Your task to perform on an android device: toggle wifi Image 0: 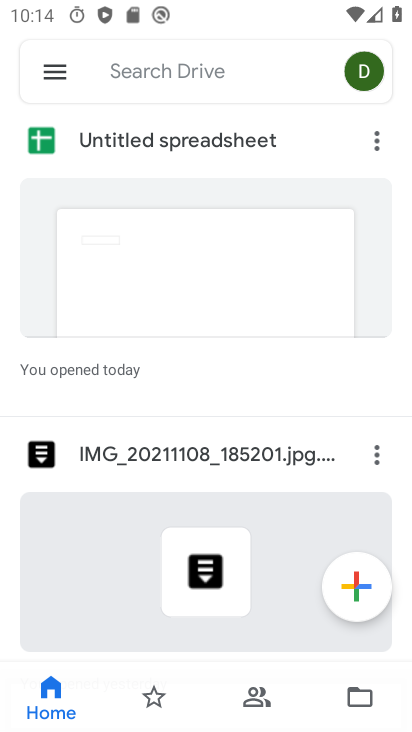
Step 0: press home button
Your task to perform on an android device: toggle wifi Image 1: 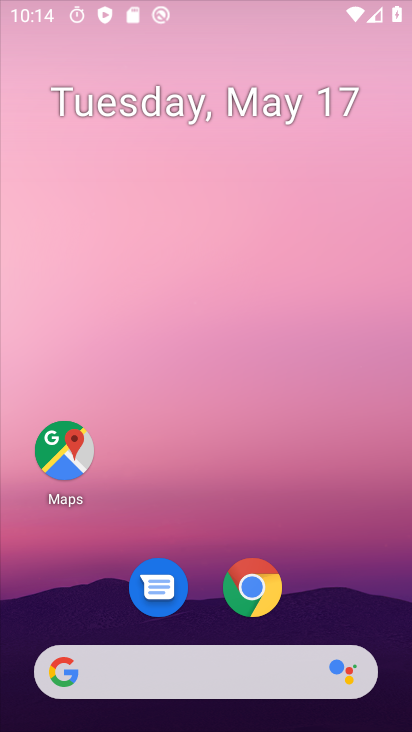
Step 1: drag from (352, 569) to (317, 166)
Your task to perform on an android device: toggle wifi Image 2: 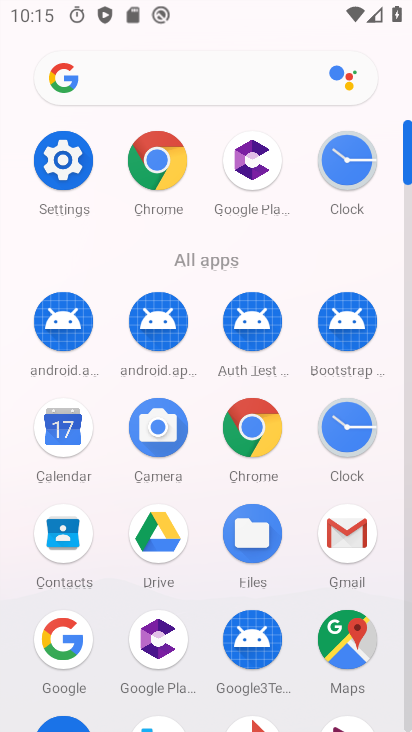
Step 2: click (43, 162)
Your task to perform on an android device: toggle wifi Image 3: 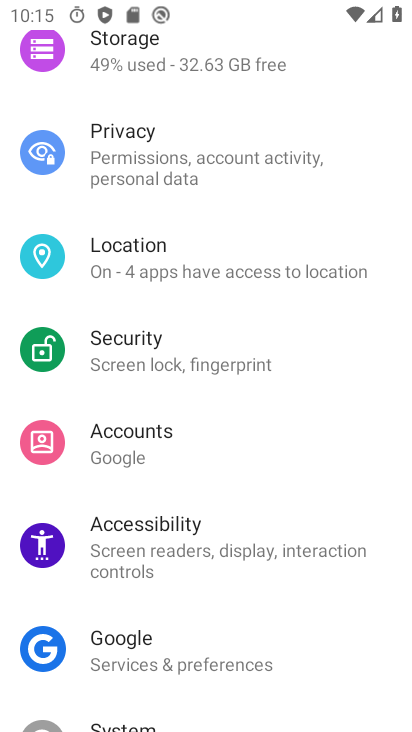
Step 3: drag from (242, 247) to (241, 636)
Your task to perform on an android device: toggle wifi Image 4: 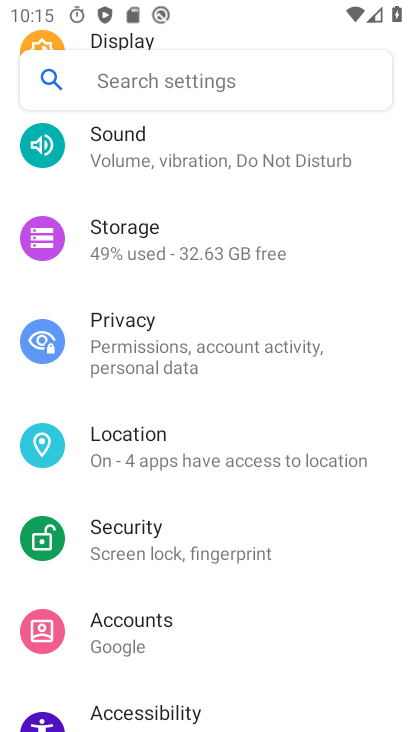
Step 4: drag from (203, 202) to (200, 672)
Your task to perform on an android device: toggle wifi Image 5: 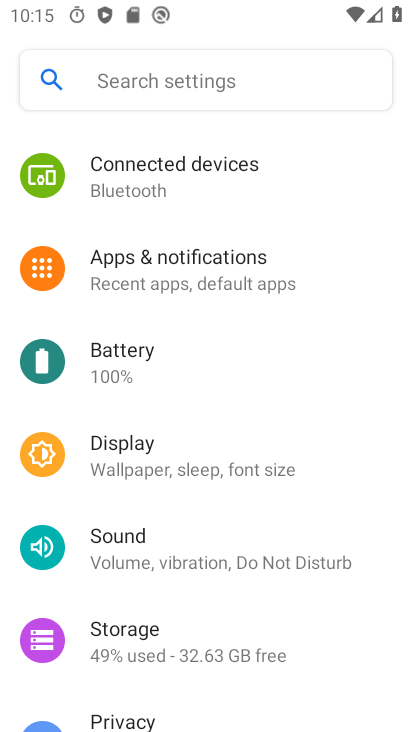
Step 5: drag from (234, 180) to (226, 637)
Your task to perform on an android device: toggle wifi Image 6: 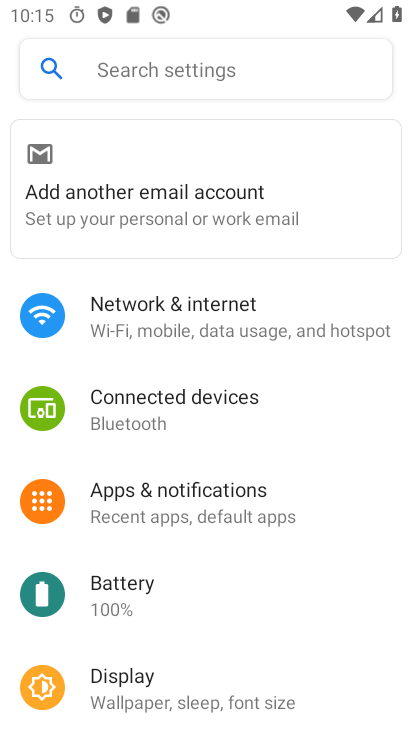
Step 6: click (206, 311)
Your task to perform on an android device: toggle wifi Image 7: 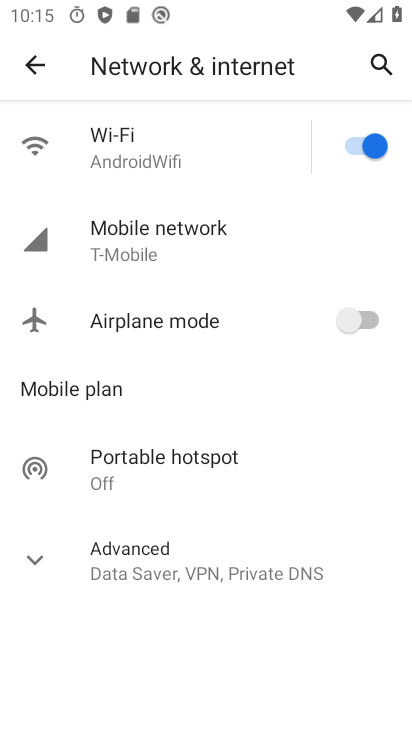
Step 7: click (218, 152)
Your task to perform on an android device: toggle wifi Image 8: 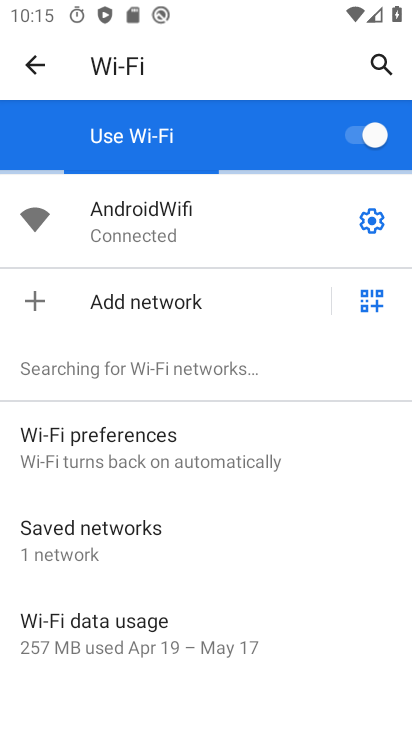
Step 8: click (363, 225)
Your task to perform on an android device: toggle wifi Image 9: 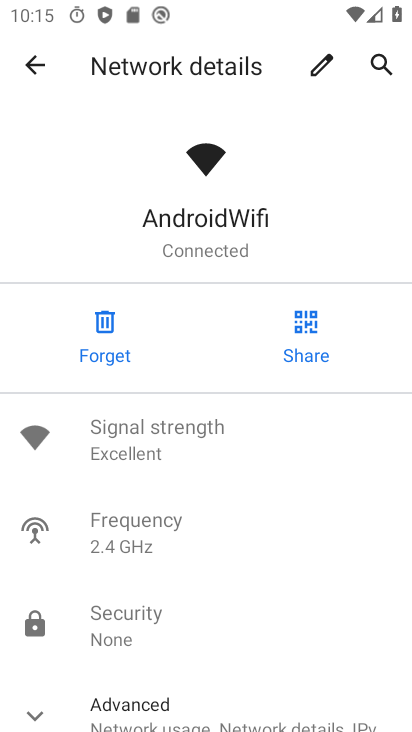
Step 9: task complete